Your task to perform on an android device: Check the news Image 0: 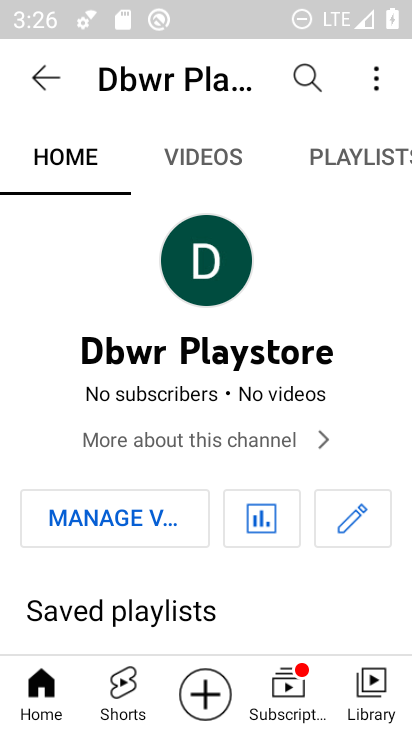
Step 0: press home button
Your task to perform on an android device: Check the news Image 1: 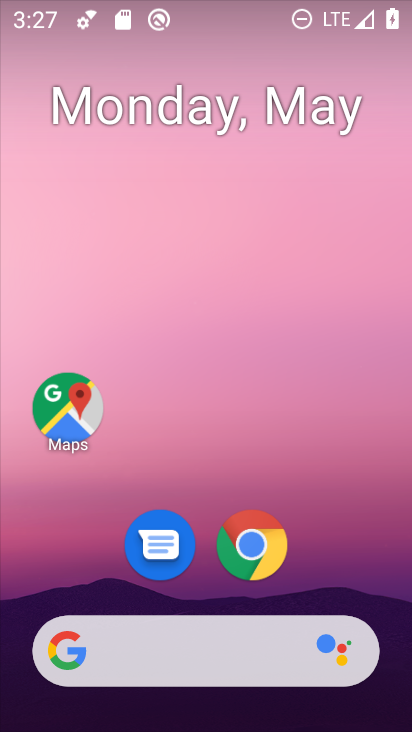
Step 1: click (246, 547)
Your task to perform on an android device: Check the news Image 2: 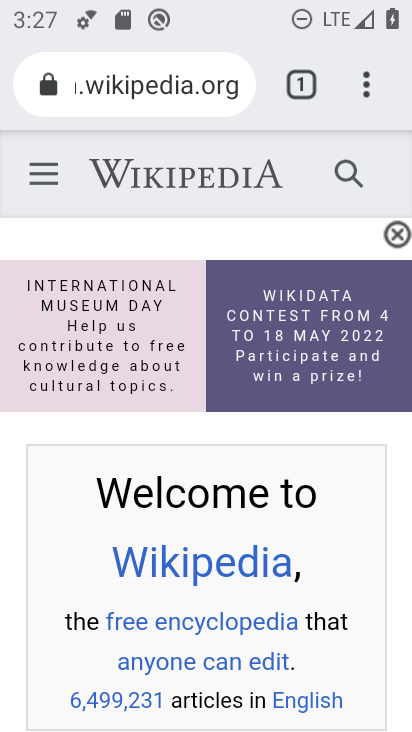
Step 2: click (124, 92)
Your task to perform on an android device: Check the news Image 3: 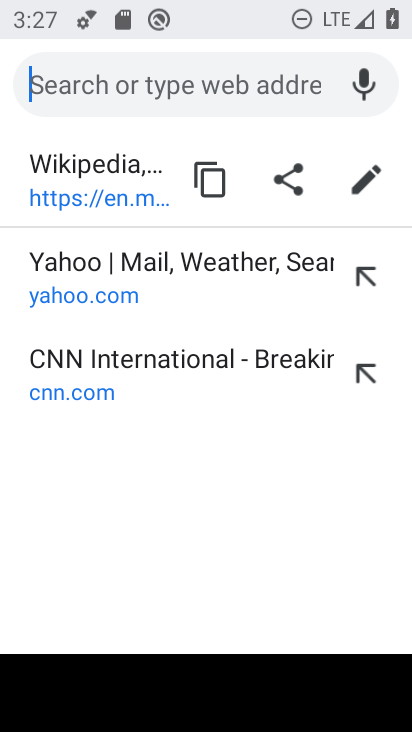
Step 3: type "news"
Your task to perform on an android device: Check the news Image 4: 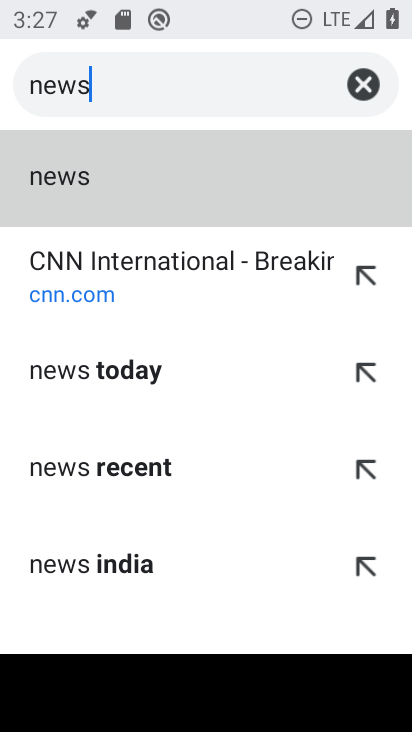
Step 4: click (109, 192)
Your task to perform on an android device: Check the news Image 5: 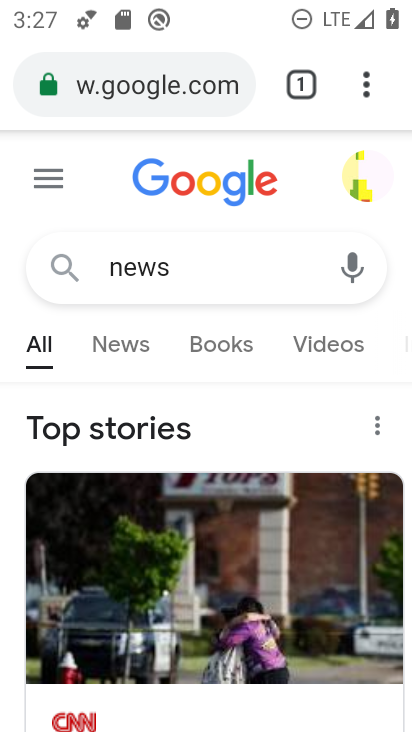
Step 5: task complete